Your task to perform on an android device: turn off priority inbox in the gmail app Image 0: 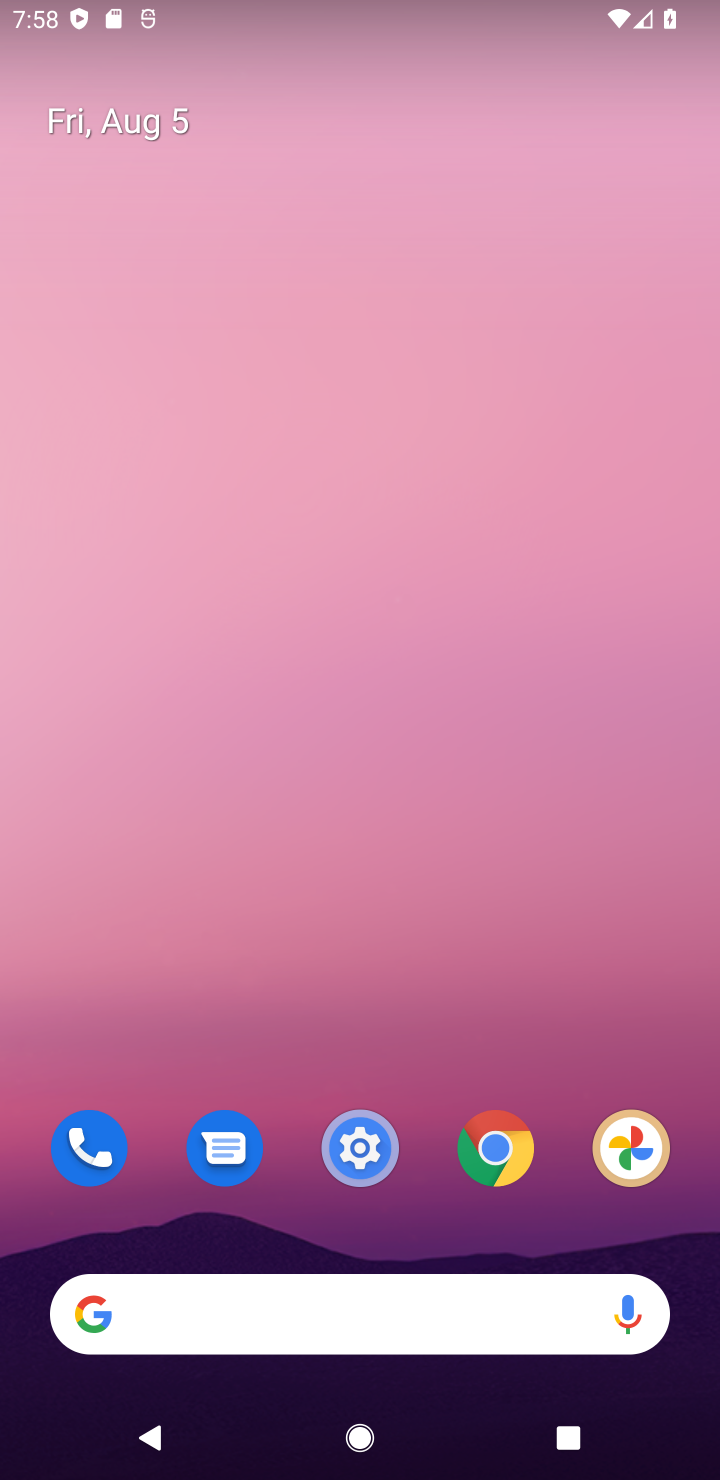
Step 0: drag from (441, 1251) to (391, 116)
Your task to perform on an android device: turn off priority inbox in the gmail app Image 1: 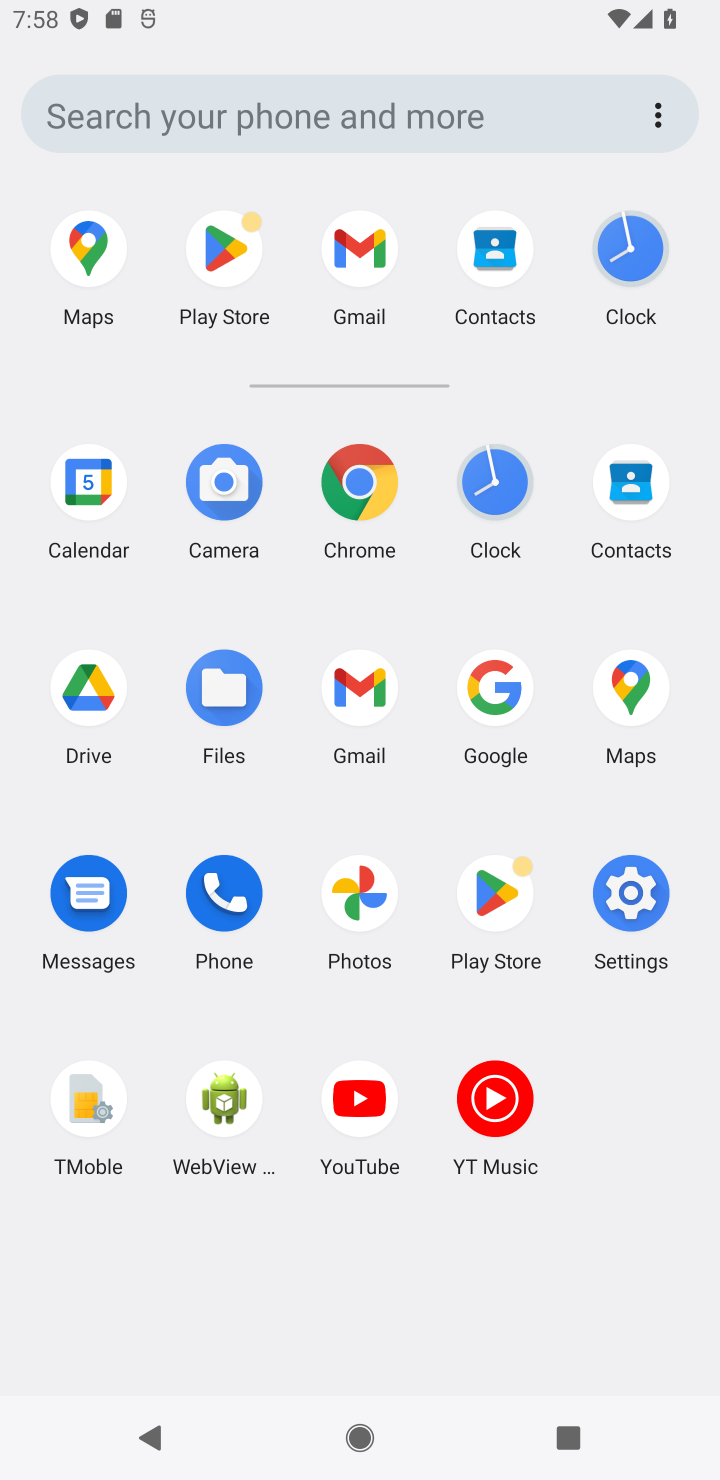
Step 1: click (391, 697)
Your task to perform on an android device: turn off priority inbox in the gmail app Image 2: 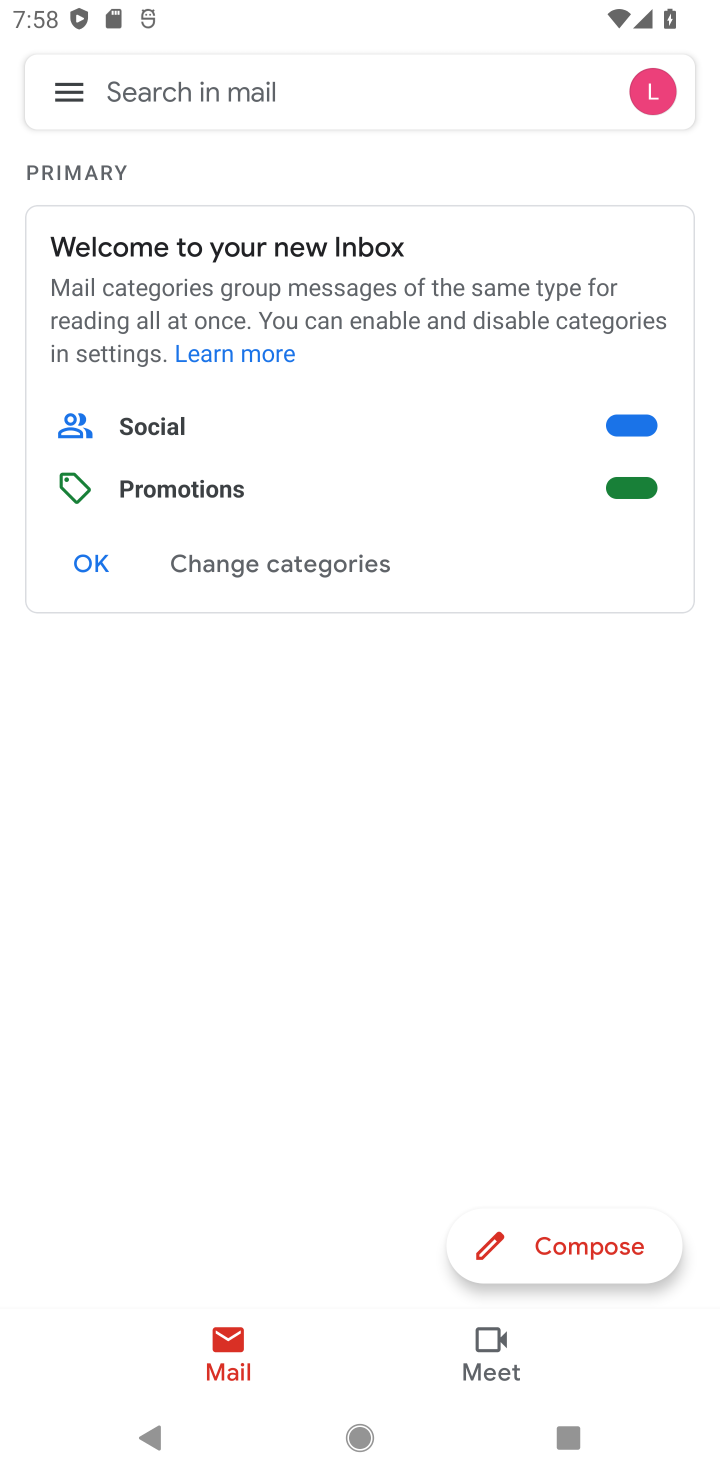
Step 2: click (54, 87)
Your task to perform on an android device: turn off priority inbox in the gmail app Image 3: 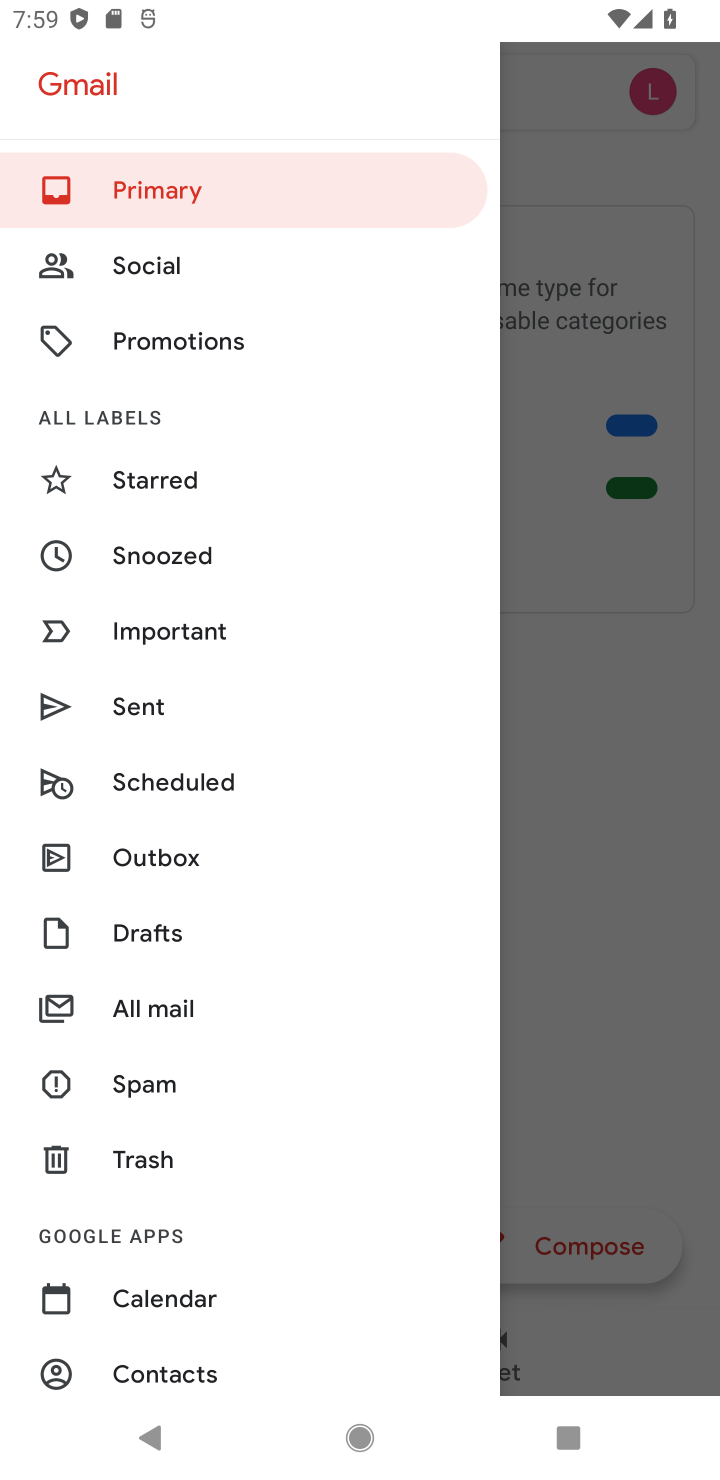
Step 3: task complete